Your task to perform on an android device: Open Google Chrome Image 0: 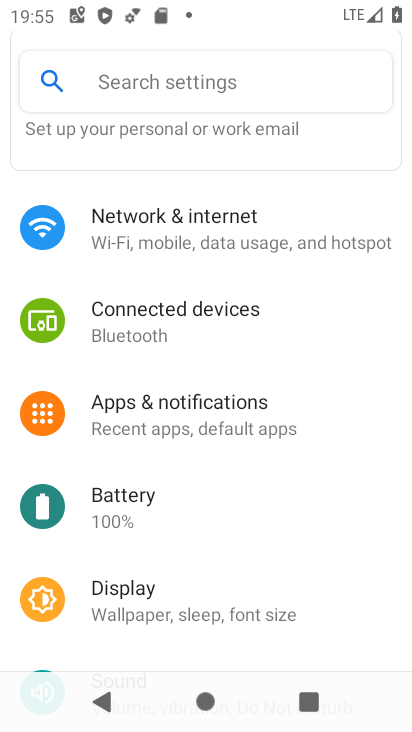
Step 0: press home button
Your task to perform on an android device: Open Google Chrome Image 1: 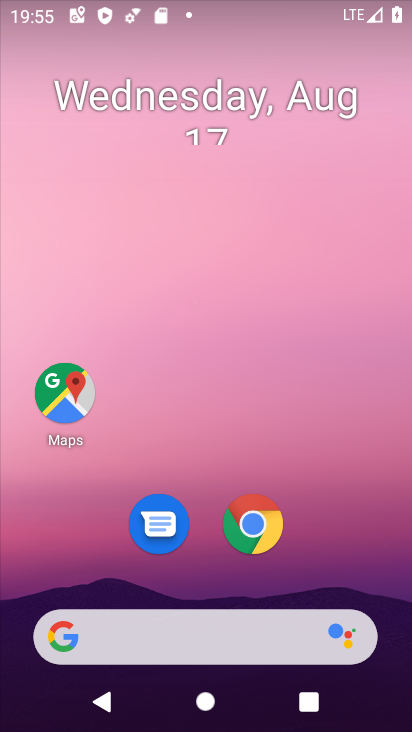
Step 1: click (256, 522)
Your task to perform on an android device: Open Google Chrome Image 2: 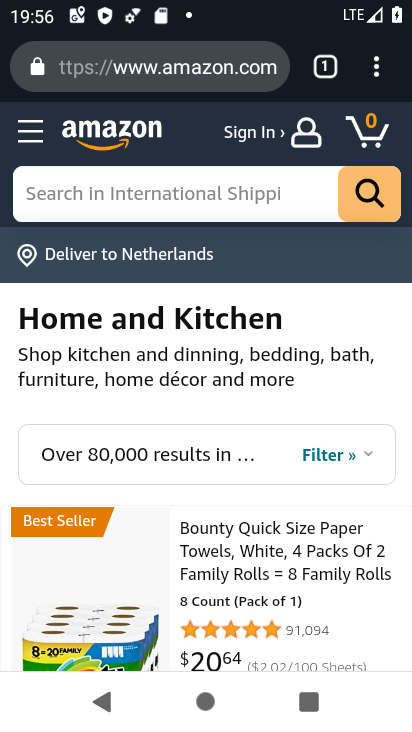
Step 2: task complete